Your task to perform on an android device: turn off notifications settings in the gmail app Image 0: 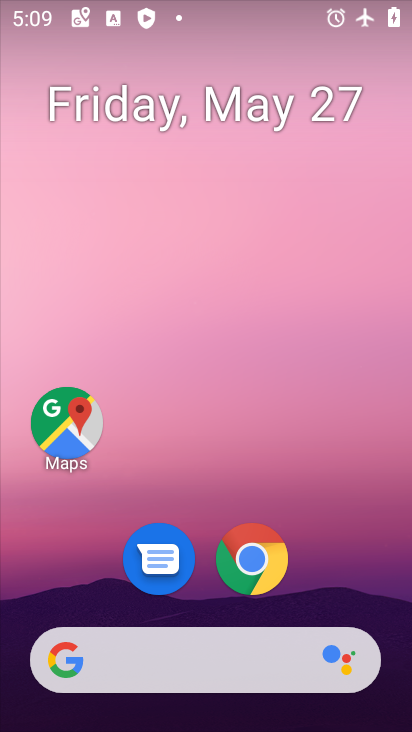
Step 0: drag from (316, 482) to (343, 93)
Your task to perform on an android device: turn off notifications settings in the gmail app Image 1: 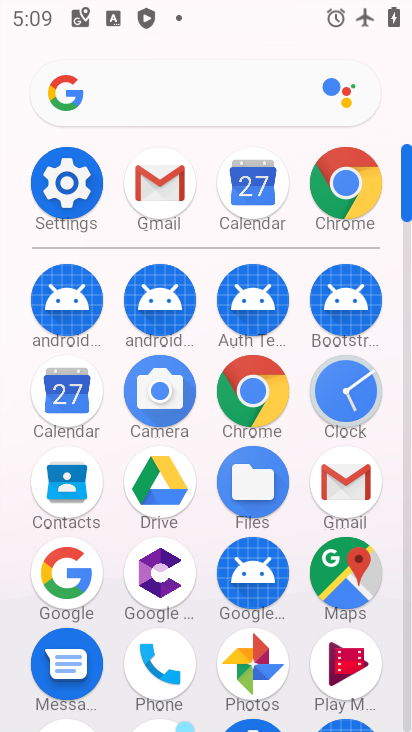
Step 1: click (333, 497)
Your task to perform on an android device: turn off notifications settings in the gmail app Image 2: 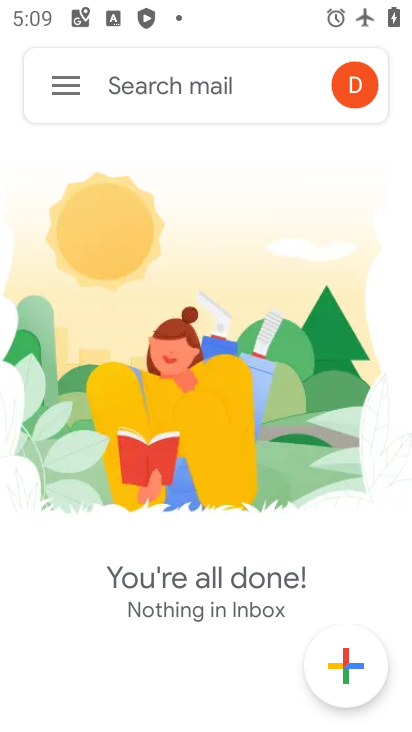
Step 2: click (55, 101)
Your task to perform on an android device: turn off notifications settings in the gmail app Image 3: 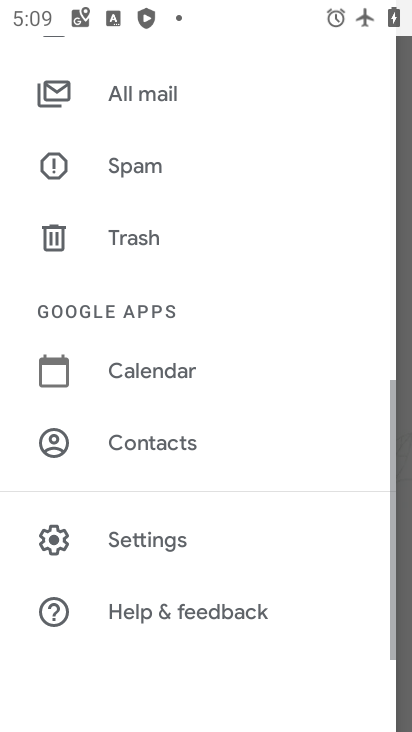
Step 3: click (169, 534)
Your task to perform on an android device: turn off notifications settings in the gmail app Image 4: 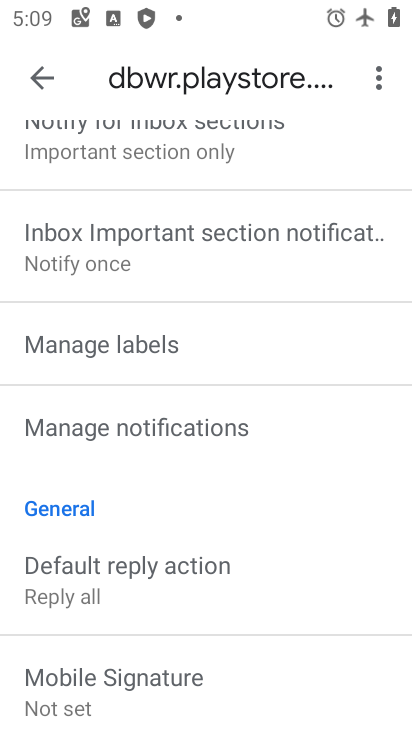
Step 4: click (196, 431)
Your task to perform on an android device: turn off notifications settings in the gmail app Image 5: 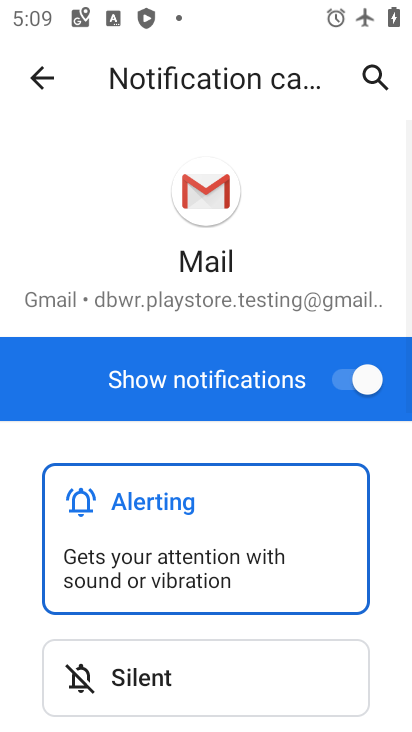
Step 5: click (345, 376)
Your task to perform on an android device: turn off notifications settings in the gmail app Image 6: 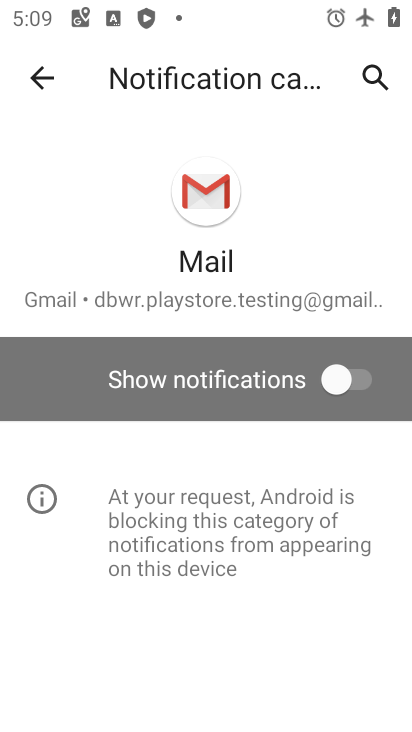
Step 6: task complete